Your task to perform on an android device: turn on translation in the chrome app Image 0: 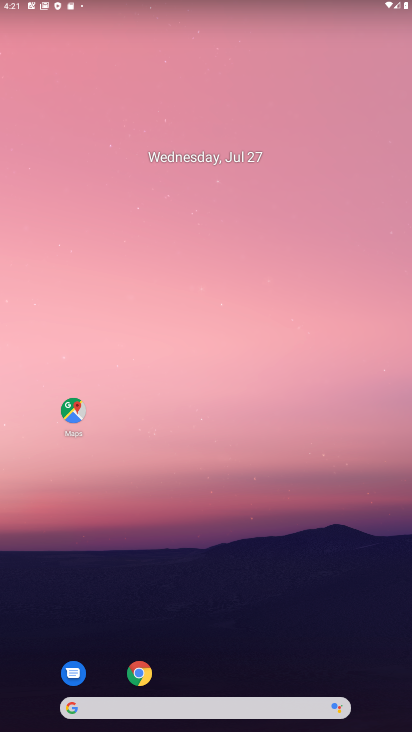
Step 0: click (137, 669)
Your task to perform on an android device: turn on translation in the chrome app Image 1: 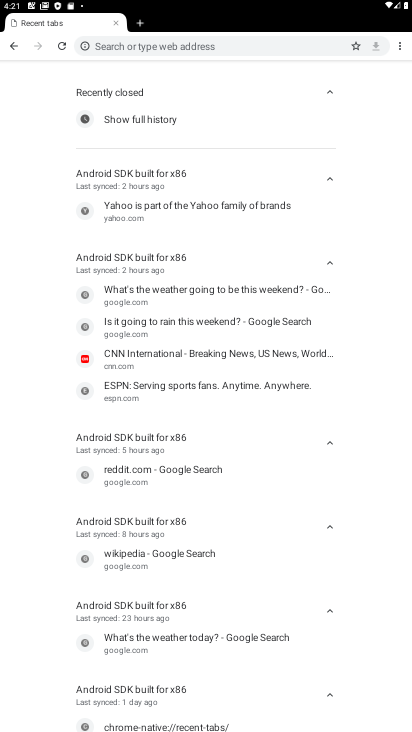
Step 1: click (399, 48)
Your task to perform on an android device: turn on translation in the chrome app Image 2: 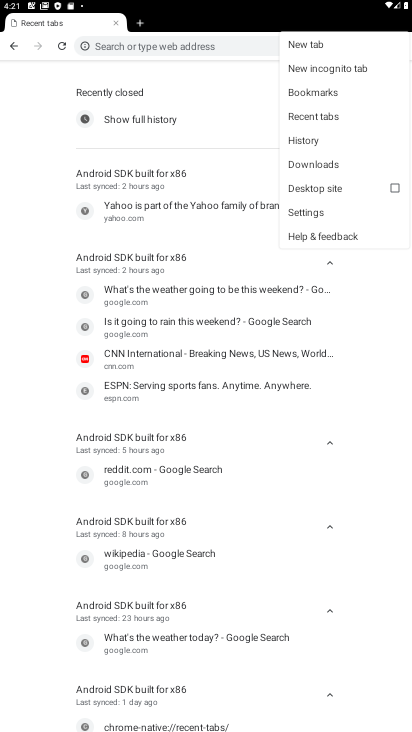
Step 2: click (323, 216)
Your task to perform on an android device: turn on translation in the chrome app Image 3: 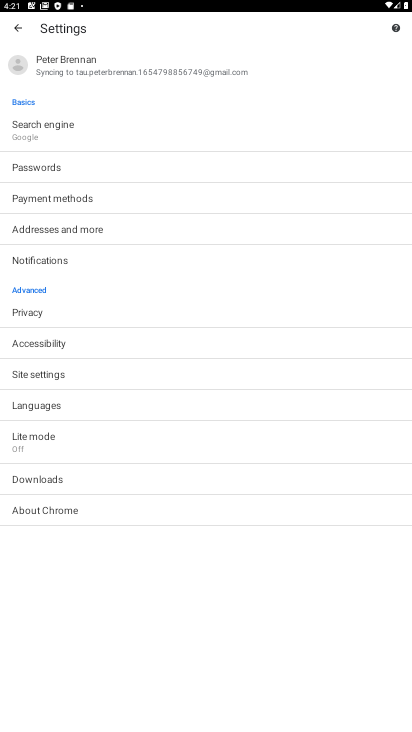
Step 3: click (64, 405)
Your task to perform on an android device: turn on translation in the chrome app Image 4: 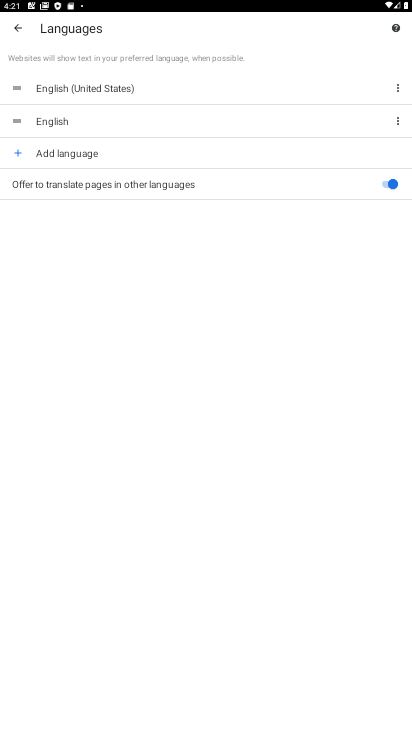
Step 4: task complete